Your task to perform on an android device: Open the calendar app, open the side menu, and click the "Day" option Image 0: 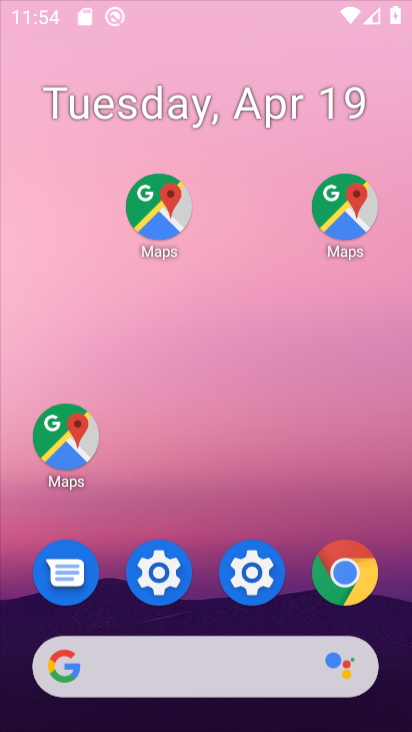
Step 0: drag from (224, 139) to (219, 104)
Your task to perform on an android device: Open the calendar app, open the side menu, and click the "Day" option Image 1: 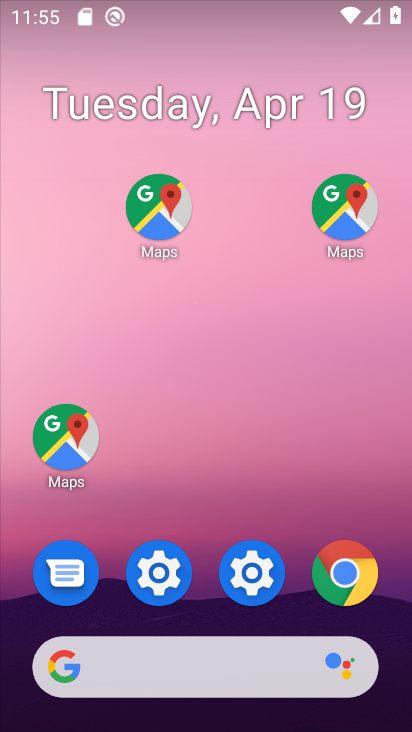
Step 1: drag from (197, 333) to (198, 47)
Your task to perform on an android device: Open the calendar app, open the side menu, and click the "Day" option Image 2: 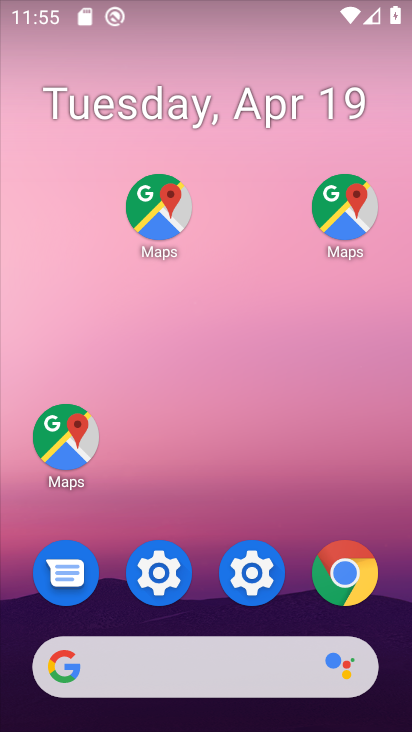
Step 2: drag from (231, 127) to (91, 92)
Your task to perform on an android device: Open the calendar app, open the side menu, and click the "Day" option Image 3: 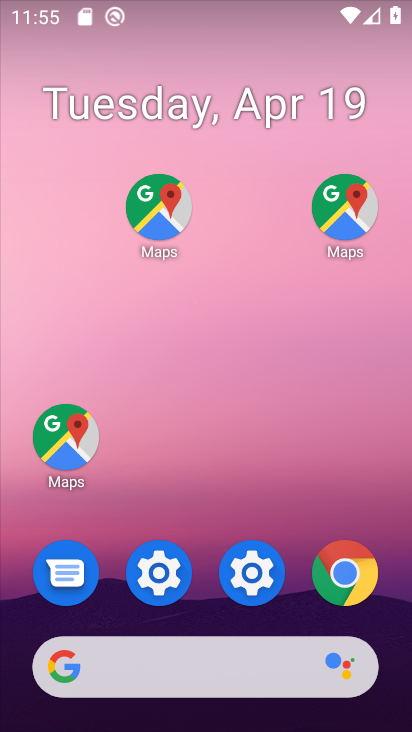
Step 3: click (199, 36)
Your task to perform on an android device: Open the calendar app, open the side menu, and click the "Day" option Image 4: 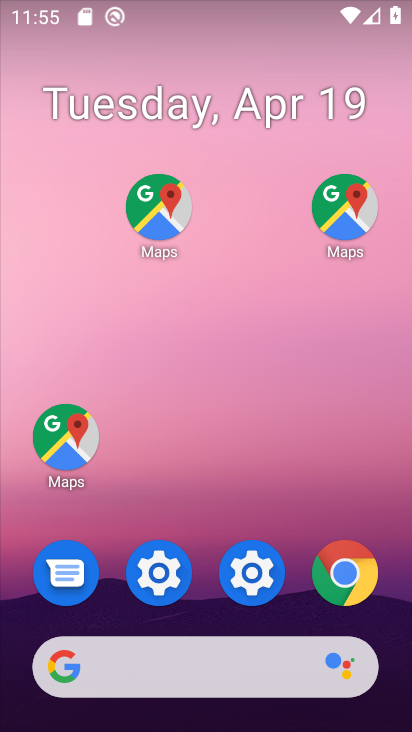
Step 4: drag from (179, 408) to (241, 93)
Your task to perform on an android device: Open the calendar app, open the side menu, and click the "Day" option Image 5: 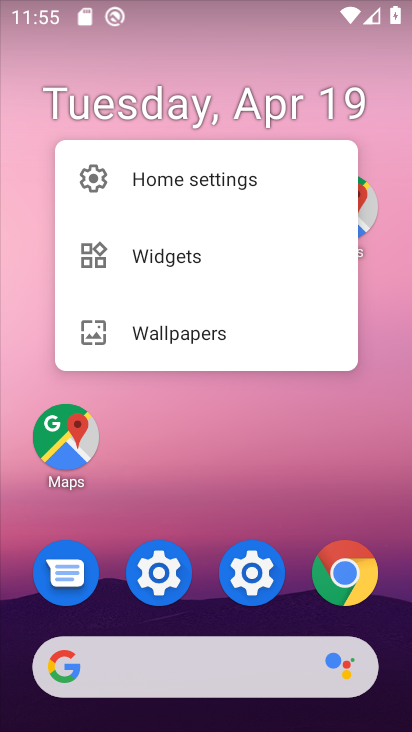
Step 5: drag from (101, 472) to (80, 32)
Your task to perform on an android device: Open the calendar app, open the side menu, and click the "Day" option Image 6: 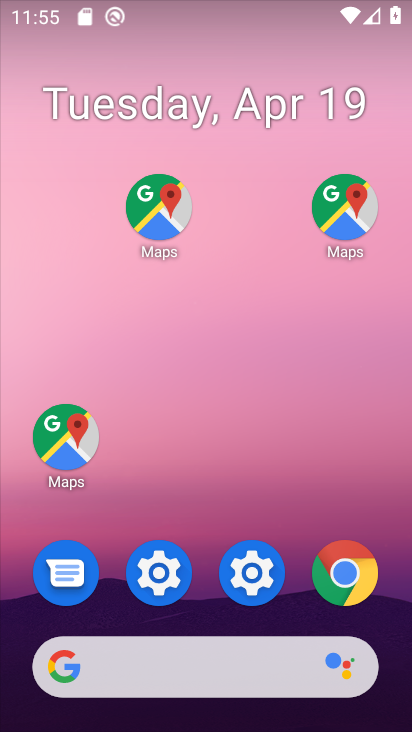
Step 6: drag from (248, 380) to (253, 107)
Your task to perform on an android device: Open the calendar app, open the side menu, and click the "Day" option Image 7: 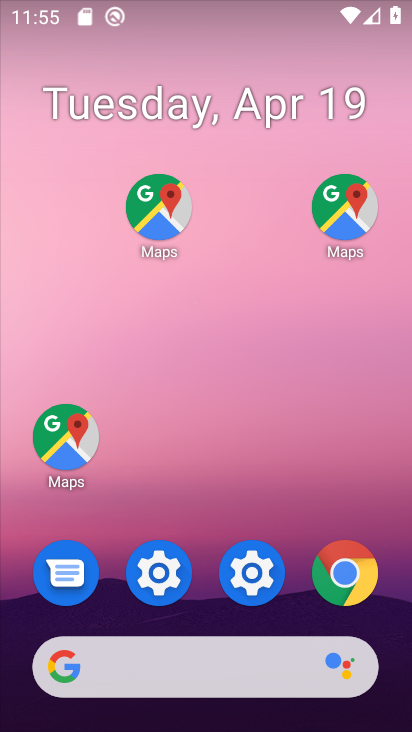
Step 7: drag from (316, 484) to (96, 164)
Your task to perform on an android device: Open the calendar app, open the side menu, and click the "Day" option Image 8: 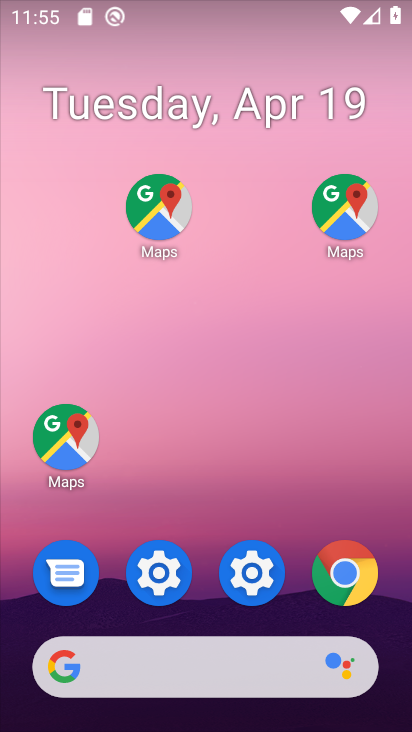
Step 8: drag from (234, 610) to (100, 32)
Your task to perform on an android device: Open the calendar app, open the side menu, and click the "Day" option Image 9: 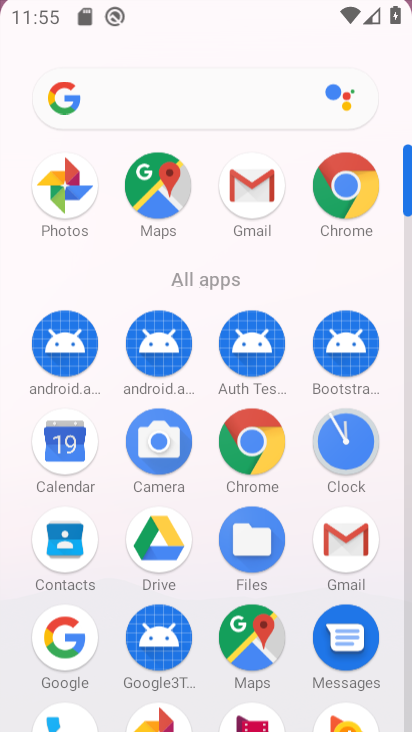
Step 9: drag from (204, 377) to (177, 167)
Your task to perform on an android device: Open the calendar app, open the side menu, and click the "Day" option Image 10: 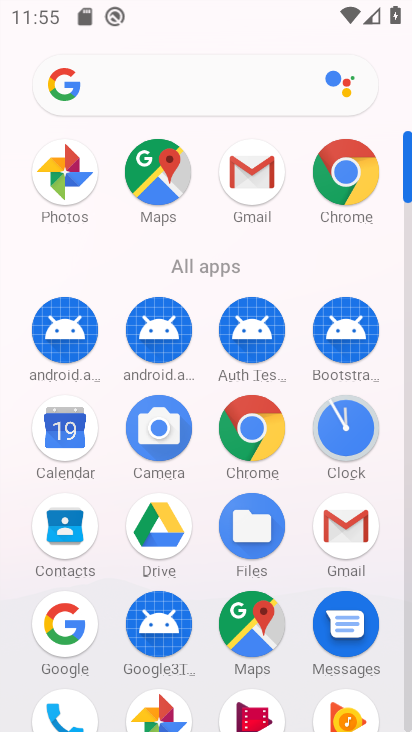
Step 10: click (64, 409)
Your task to perform on an android device: Open the calendar app, open the side menu, and click the "Day" option Image 11: 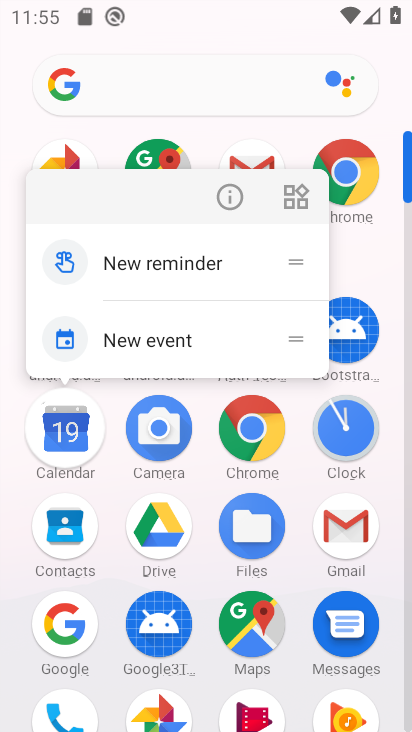
Step 11: click (73, 423)
Your task to perform on an android device: Open the calendar app, open the side menu, and click the "Day" option Image 12: 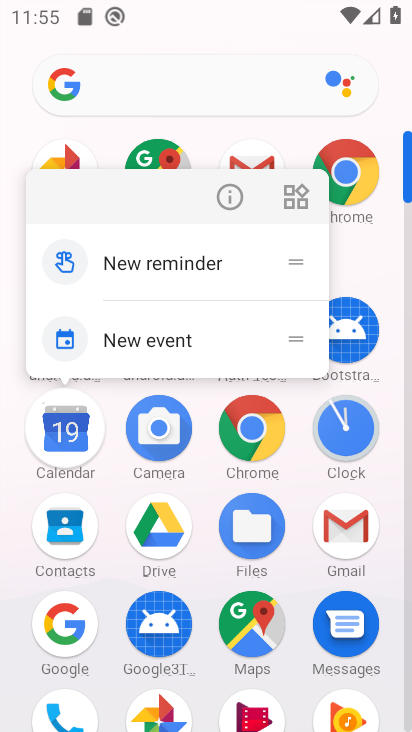
Step 12: click (56, 408)
Your task to perform on an android device: Open the calendar app, open the side menu, and click the "Day" option Image 13: 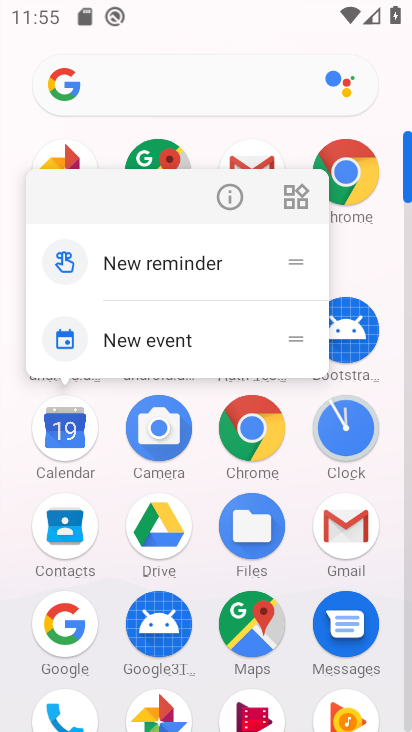
Step 13: click (61, 413)
Your task to perform on an android device: Open the calendar app, open the side menu, and click the "Day" option Image 14: 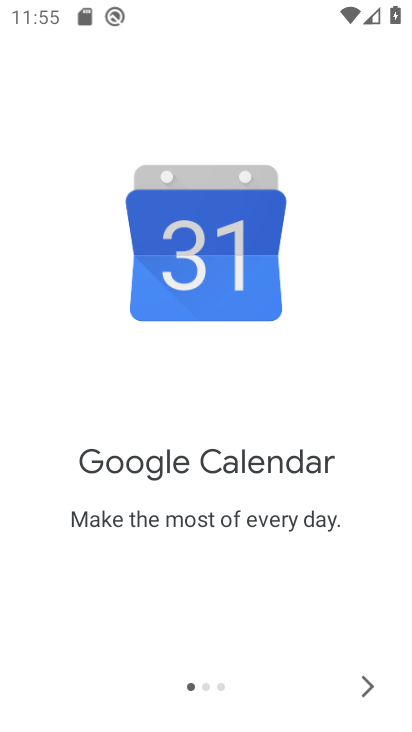
Step 14: click (356, 685)
Your task to perform on an android device: Open the calendar app, open the side menu, and click the "Day" option Image 15: 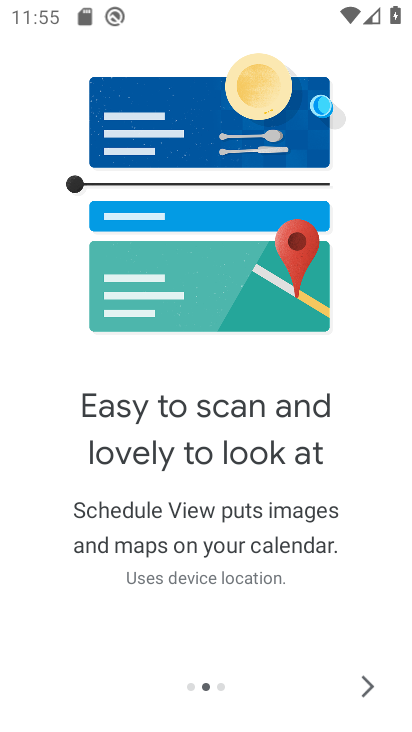
Step 15: click (356, 685)
Your task to perform on an android device: Open the calendar app, open the side menu, and click the "Day" option Image 16: 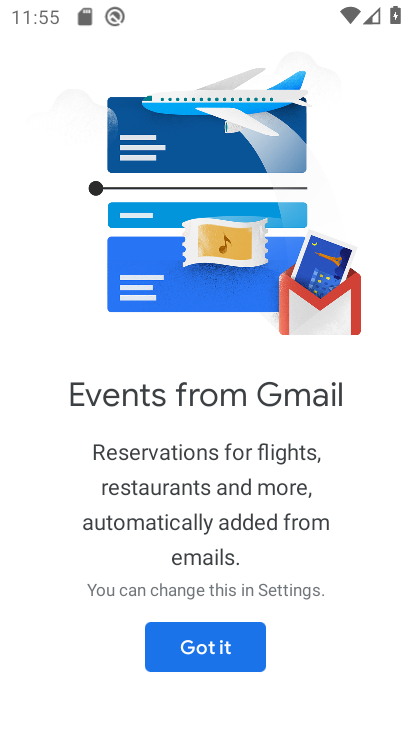
Step 16: click (214, 641)
Your task to perform on an android device: Open the calendar app, open the side menu, and click the "Day" option Image 17: 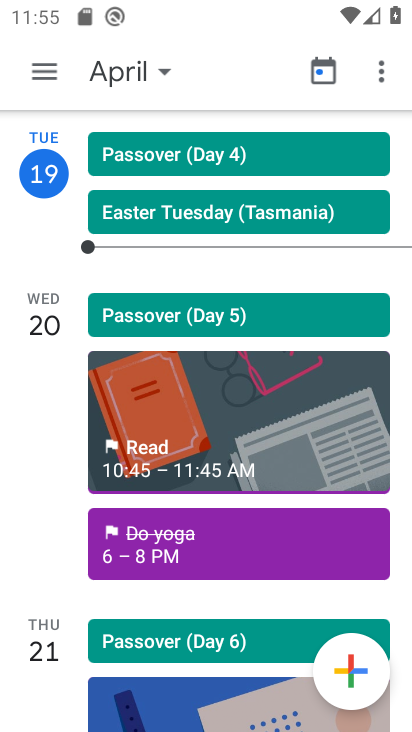
Step 17: click (46, 68)
Your task to perform on an android device: Open the calendar app, open the side menu, and click the "Day" option Image 18: 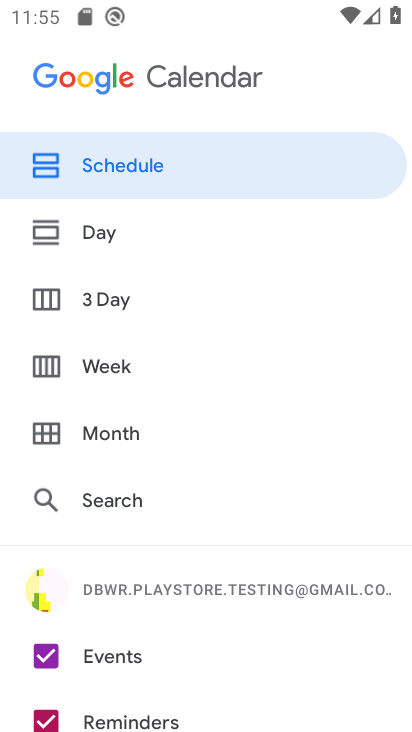
Step 18: click (94, 232)
Your task to perform on an android device: Open the calendar app, open the side menu, and click the "Day" option Image 19: 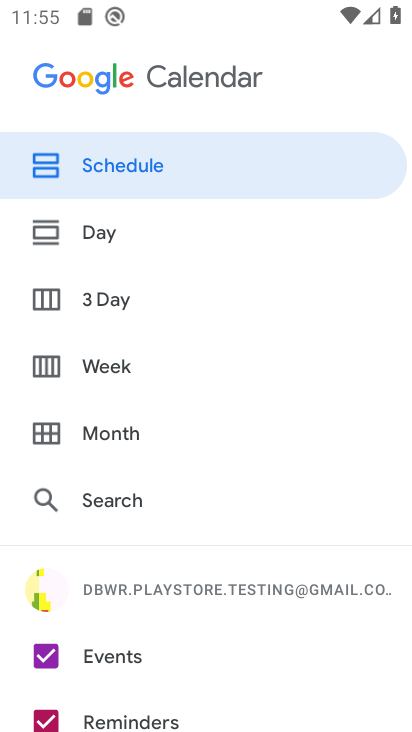
Step 19: click (94, 232)
Your task to perform on an android device: Open the calendar app, open the side menu, and click the "Day" option Image 20: 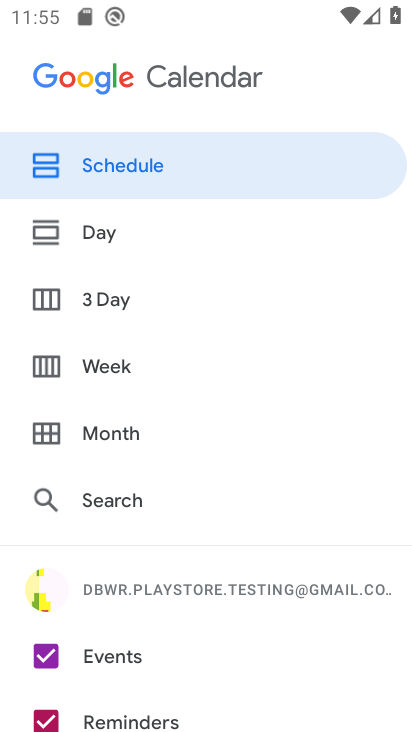
Step 20: click (94, 232)
Your task to perform on an android device: Open the calendar app, open the side menu, and click the "Day" option Image 21: 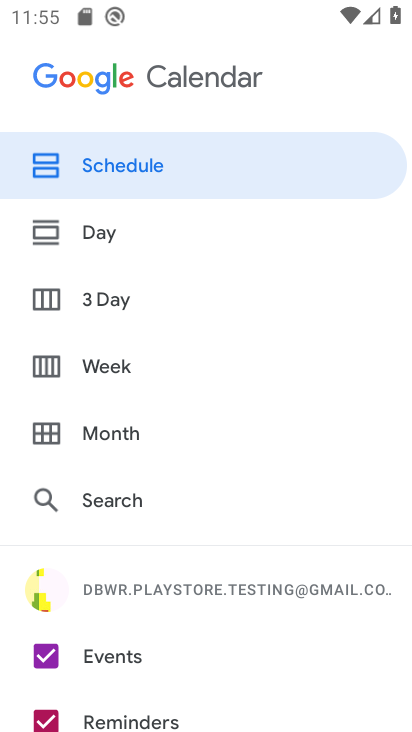
Step 21: click (94, 232)
Your task to perform on an android device: Open the calendar app, open the side menu, and click the "Day" option Image 22: 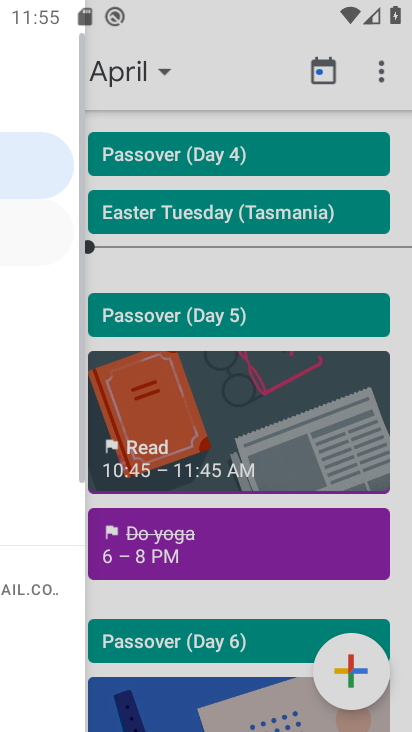
Step 22: click (42, 229)
Your task to perform on an android device: Open the calendar app, open the side menu, and click the "Day" option Image 23: 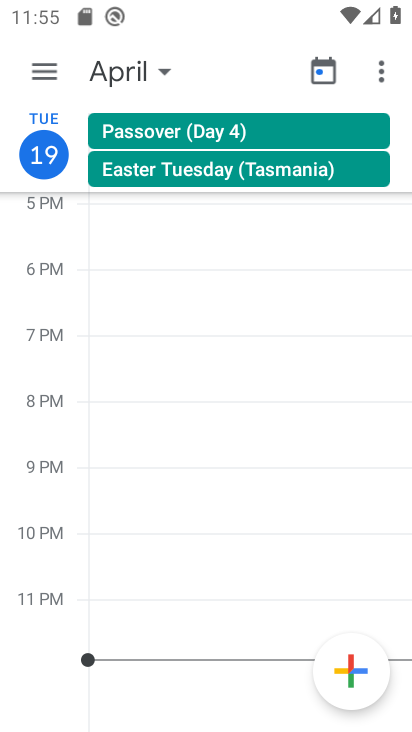
Step 23: task complete